Your task to perform on an android device: delete browsing data in the chrome app Image 0: 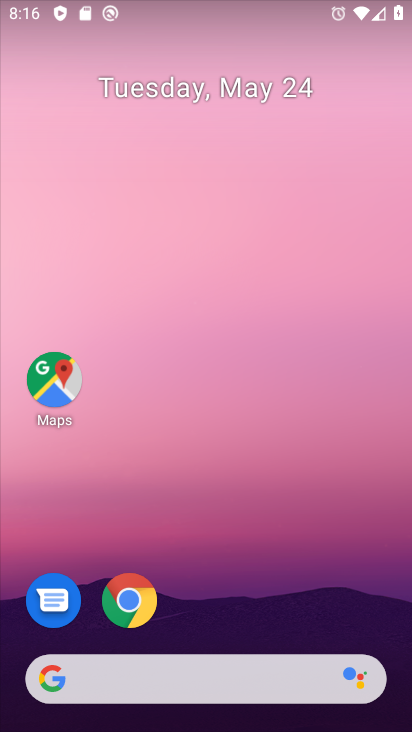
Step 0: click (130, 602)
Your task to perform on an android device: delete browsing data in the chrome app Image 1: 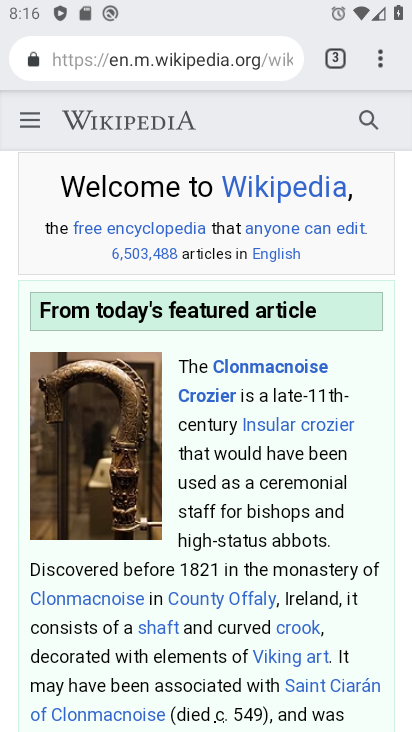
Step 1: click (379, 66)
Your task to perform on an android device: delete browsing data in the chrome app Image 2: 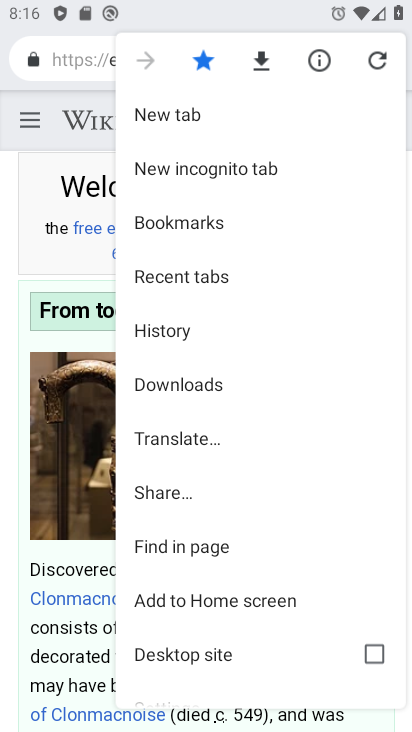
Step 2: click (165, 327)
Your task to perform on an android device: delete browsing data in the chrome app Image 3: 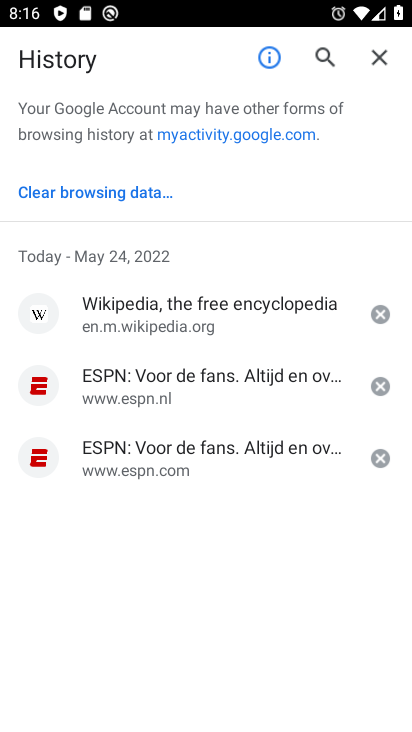
Step 3: click (94, 195)
Your task to perform on an android device: delete browsing data in the chrome app Image 4: 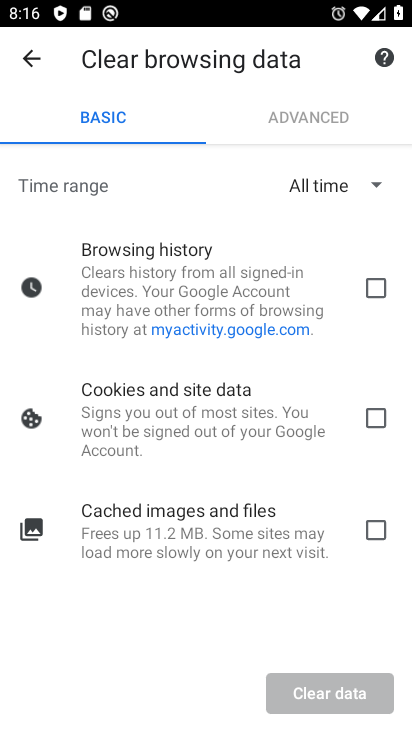
Step 4: click (373, 288)
Your task to perform on an android device: delete browsing data in the chrome app Image 5: 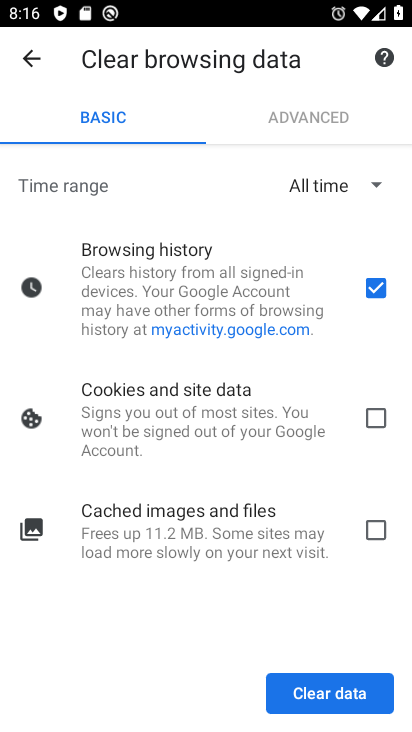
Step 5: click (355, 692)
Your task to perform on an android device: delete browsing data in the chrome app Image 6: 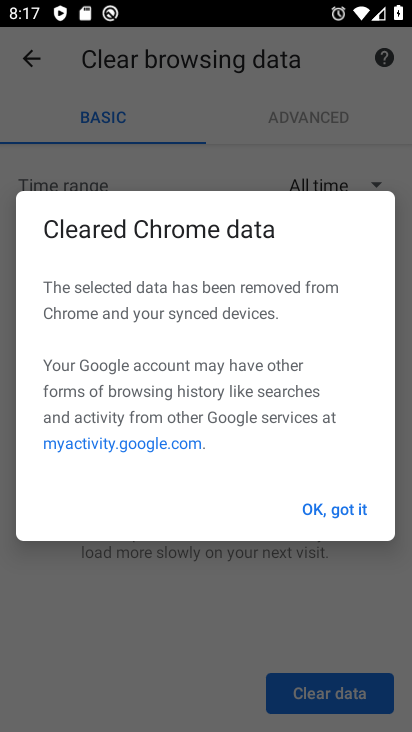
Step 6: click (347, 511)
Your task to perform on an android device: delete browsing data in the chrome app Image 7: 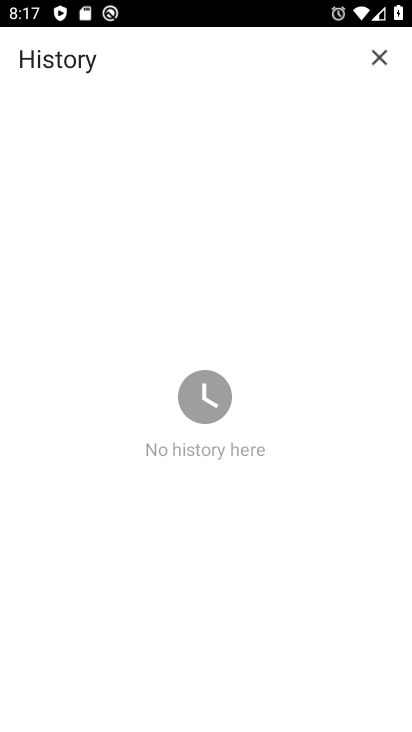
Step 7: task complete